Your task to perform on an android device: toggle priority inbox in the gmail app Image 0: 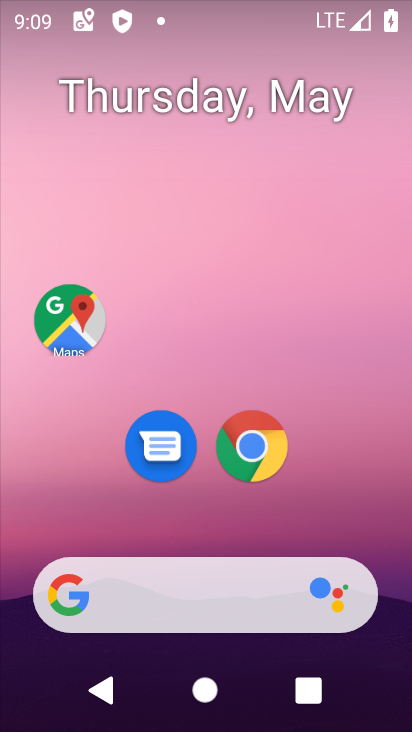
Step 0: drag from (395, 611) to (343, 71)
Your task to perform on an android device: toggle priority inbox in the gmail app Image 1: 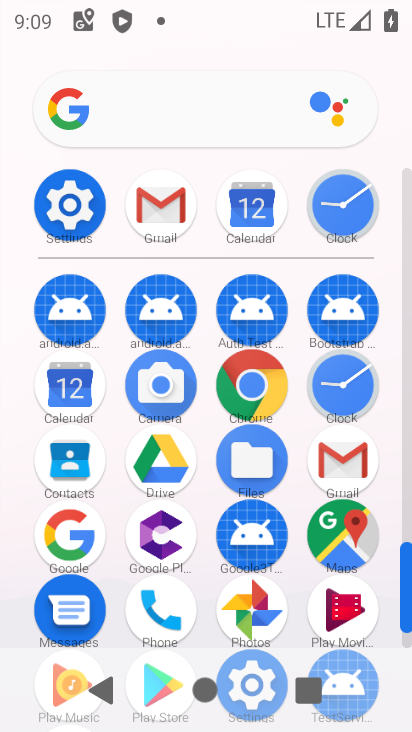
Step 1: click (405, 642)
Your task to perform on an android device: toggle priority inbox in the gmail app Image 2: 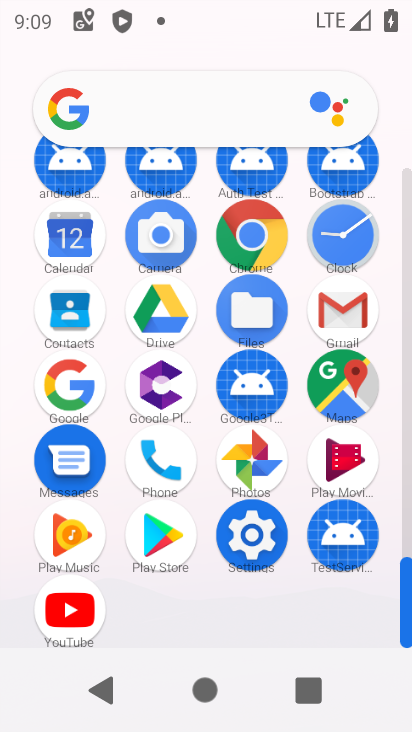
Step 2: click (342, 306)
Your task to perform on an android device: toggle priority inbox in the gmail app Image 3: 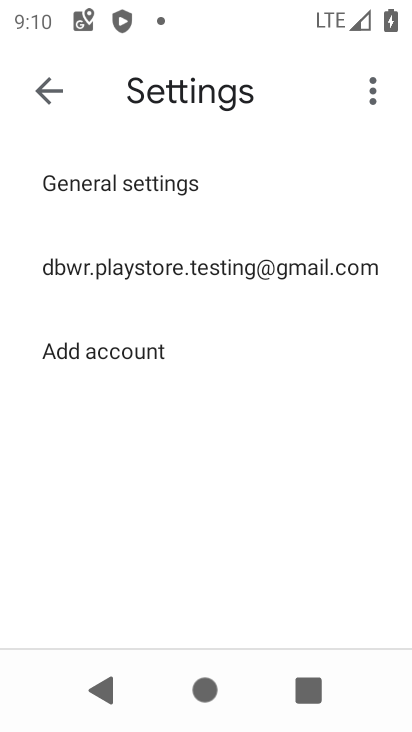
Step 3: click (164, 264)
Your task to perform on an android device: toggle priority inbox in the gmail app Image 4: 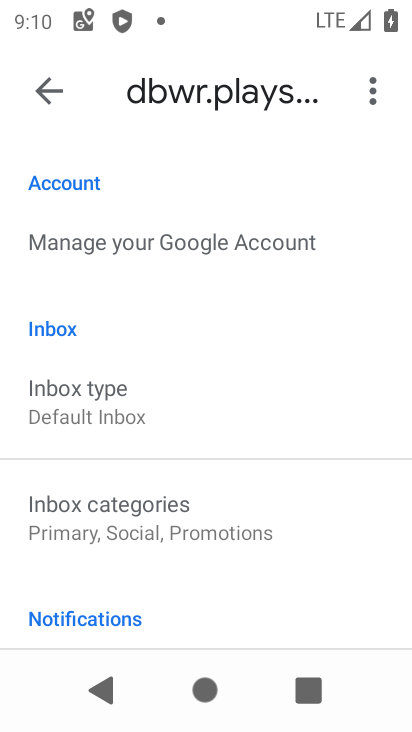
Step 4: drag from (271, 519) to (244, 320)
Your task to perform on an android device: toggle priority inbox in the gmail app Image 5: 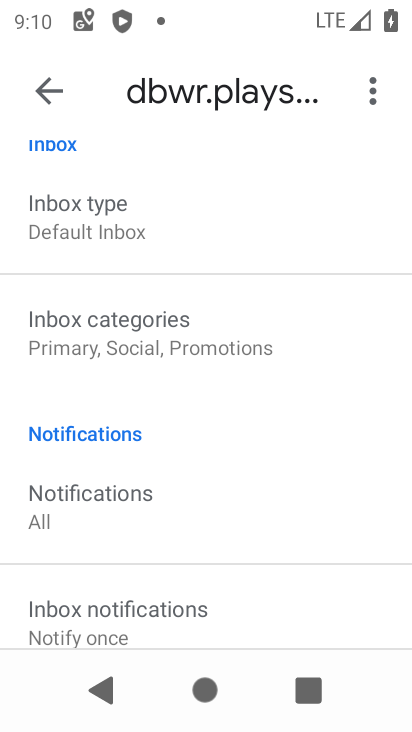
Step 5: click (57, 220)
Your task to perform on an android device: toggle priority inbox in the gmail app Image 6: 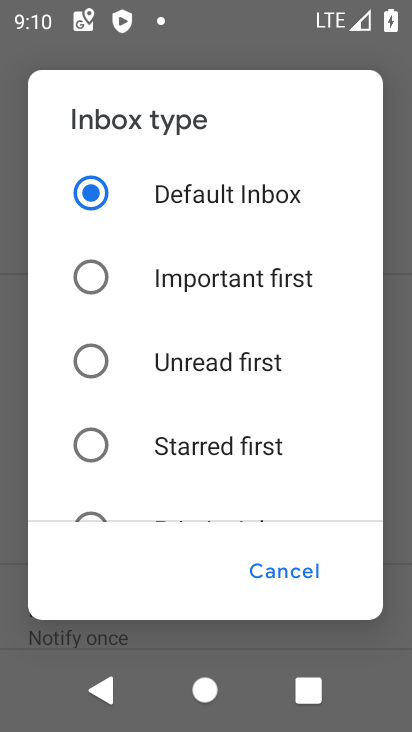
Step 6: drag from (254, 479) to (260, 165)
Your task to perform on an android device: toggle priority inbox in the gmail app Image 7: 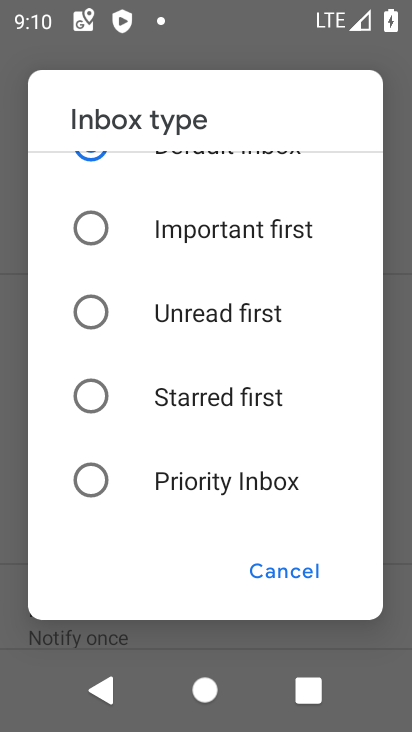
Step 7: click (85, 476)
Your task to perform on an android device: toggle priority inbox in the gmail app Image 8: 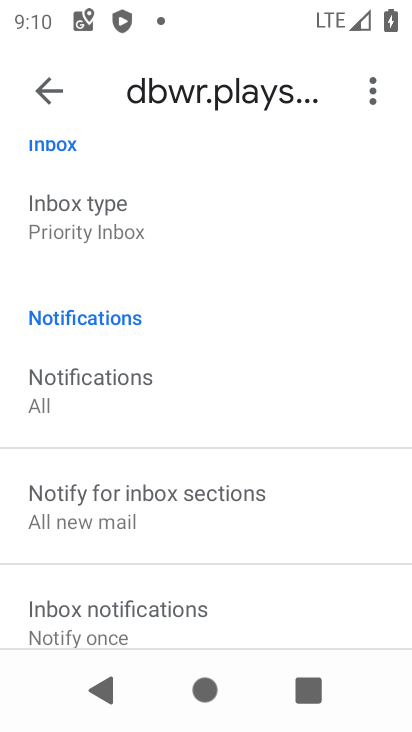
Step 8: task complete